Your task to perform on an android device: check google app version Image 0: 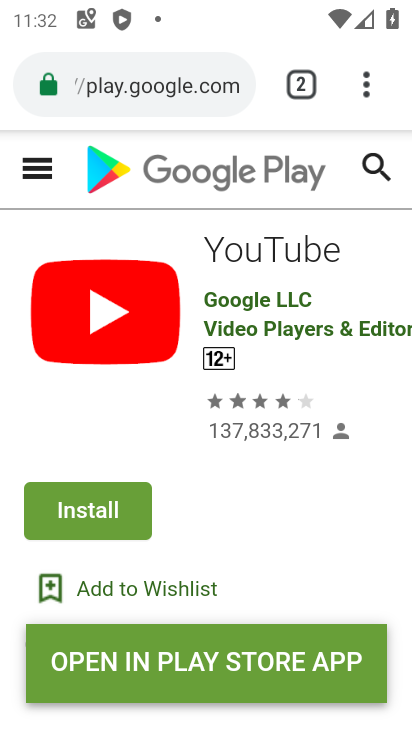
Step 0: press home button
Your task to perform on an android device: check google app version Image 1: 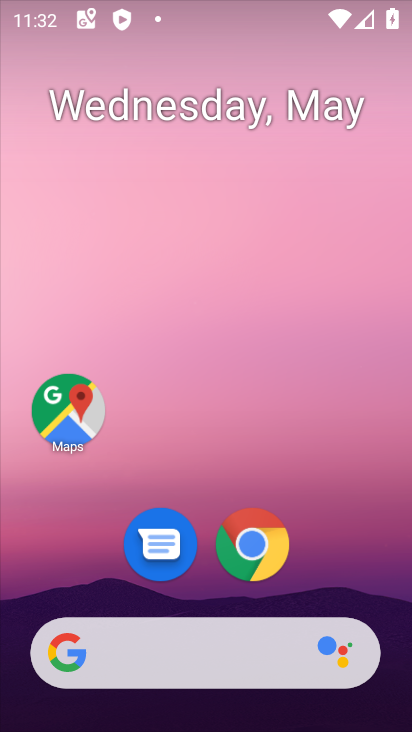
Step 1: drag from (341, 651) to (375, 138)
Your task to perform on an android device: check google app version Image 2: 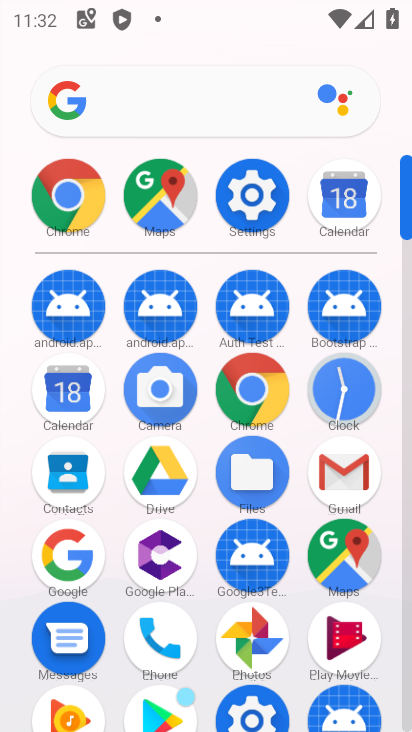
Step 2: click (265, 391)
Your task to perform on an android device: check google app version Image 3: 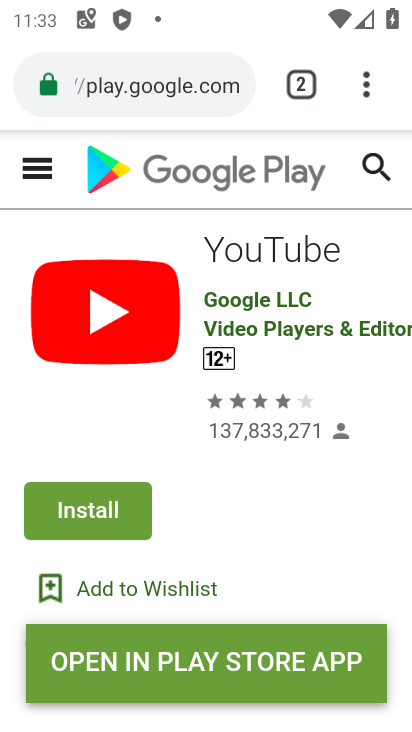
Step 3: click (366, 69)
Your task to perform on an android device: check google app version Image 4: 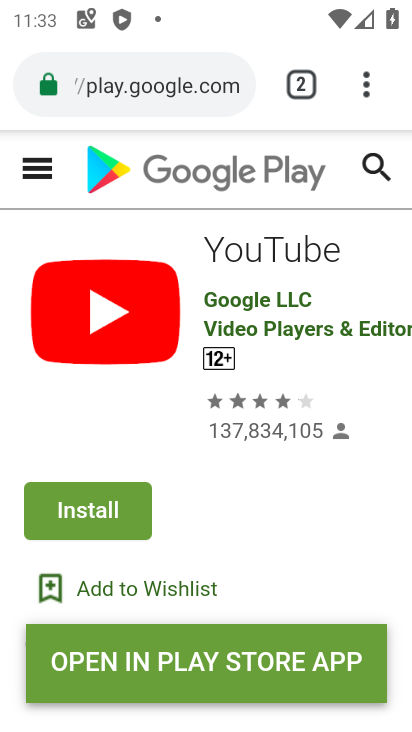
Step 4: drag from (359, 79) to (296, 690)
Your task to perform on an android device: check google app version Image 5: 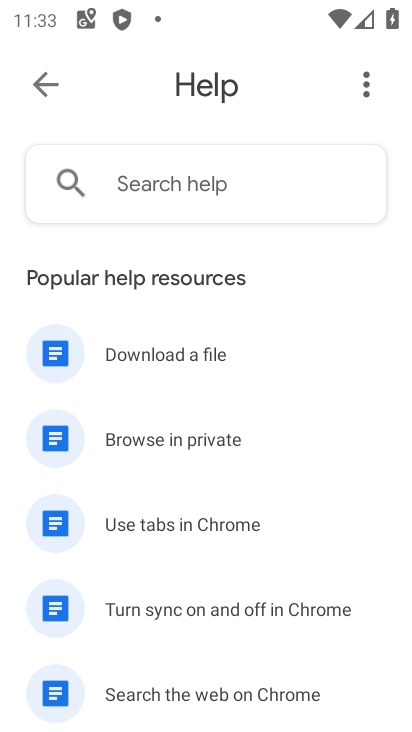
Step 5: click (363, 87)
Your task to perform on an android device: check google app version Image 6: 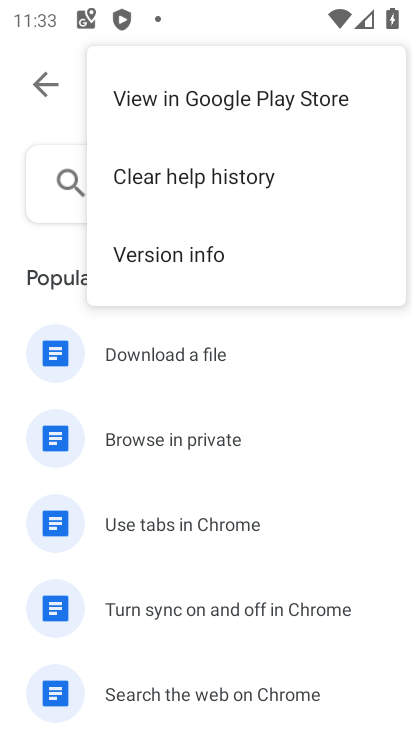
Step 6: click (270, 261)
Your task to perform on an android device: check google app version Image 7: 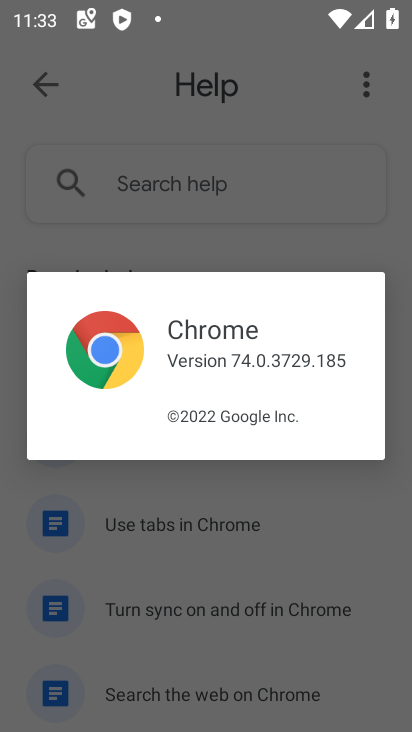
Step 7: task complete